Your task to perform on an android device: Do I have any events today? Image 0: 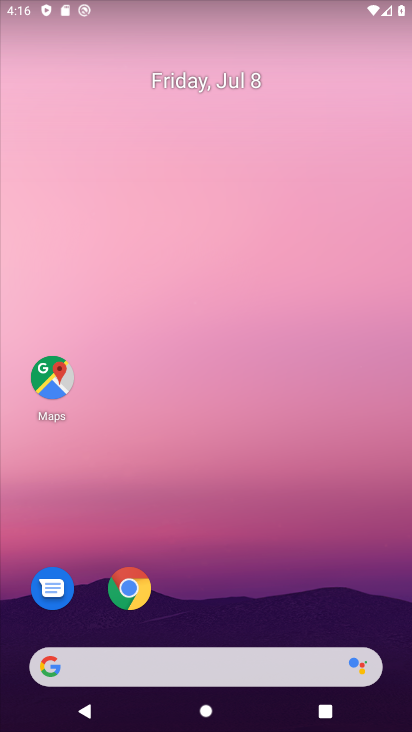
Step 0: drag from (266, 730) to (156, 139)
Your task to perform on an android device: Do I have any events today? Image 1: 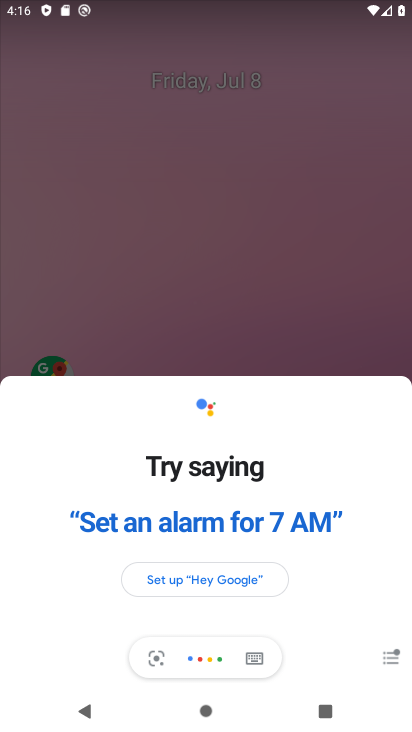
Step 1: click (176, 132)
Your task to perform on an android device: Do I have any events today? Image 2: 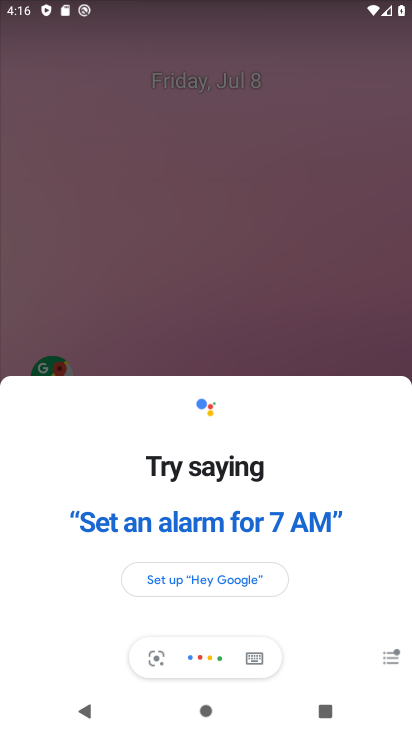
Step 2: click (174, 135)
Your task to perform on an android device: Do I have any events today? Image 3: 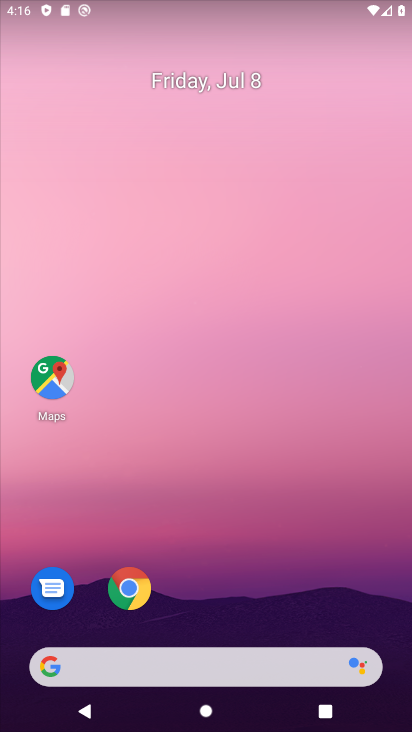
Step 3: press back button
Your task to perform on an android device: Do I have any events today? Image 4: 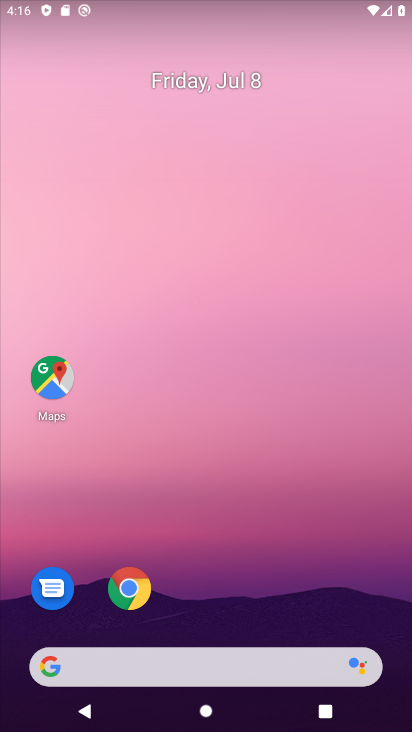
Step 4: press back button
Your task to perform on an android device: Do I have any events today? Image 5: 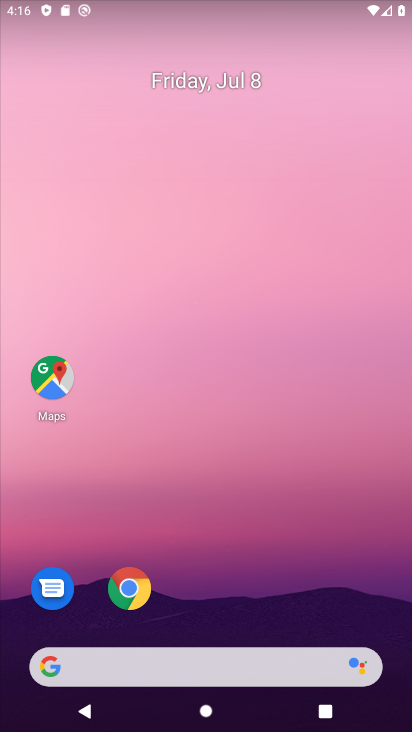
Step 5: drag from (299, 713) to (194, 205)
Your task to perform on an android device: Do I have any events today? Image 6: 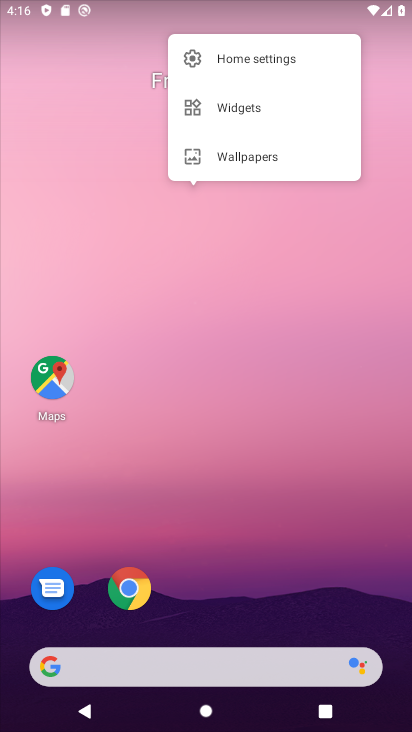
Step 6: drag from (281, 624) to (106, 31)
Your task to perform on an android device: Do I have any events today? Image 7: 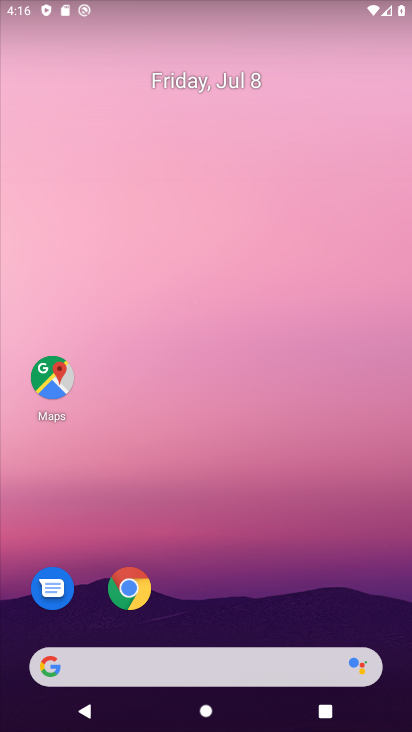
Step 7: drag from (286, 669) to (107, 114)
Your task to perform on an android device: Do I have any events today? Image 8: 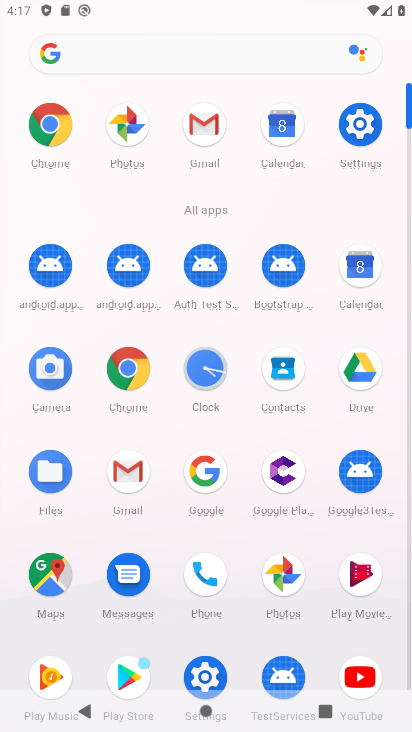
Step 8: click (362, 249)
Your task to perform on an android device: Do I have any events today? Image 9: 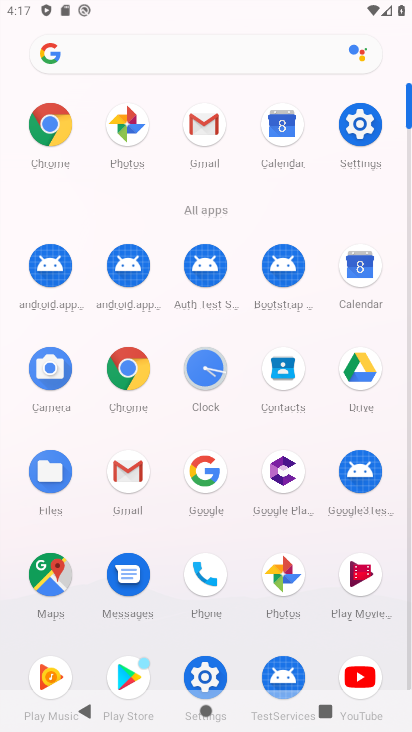
Step 9: click (364, 276)
Your task to perform on an android device: Do I have any events today? Image 10: 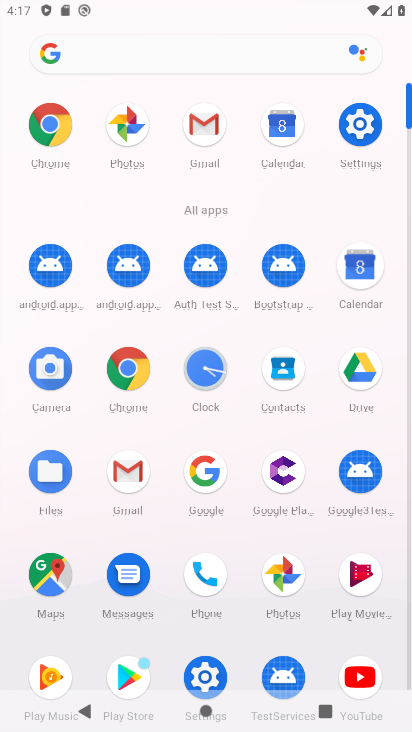
Step 10: click (364, 274)
Your task to perform on an android device: Do I have any events today? Image 11: 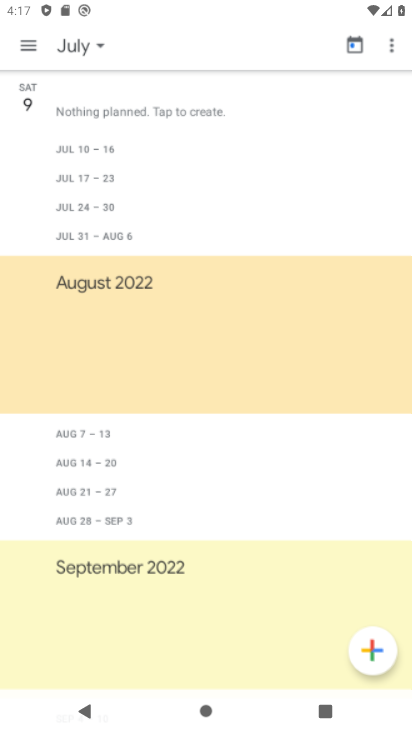
Step 11: click (364, 274)
Your task to perform on an android device: Do I have any events today? Image 12: 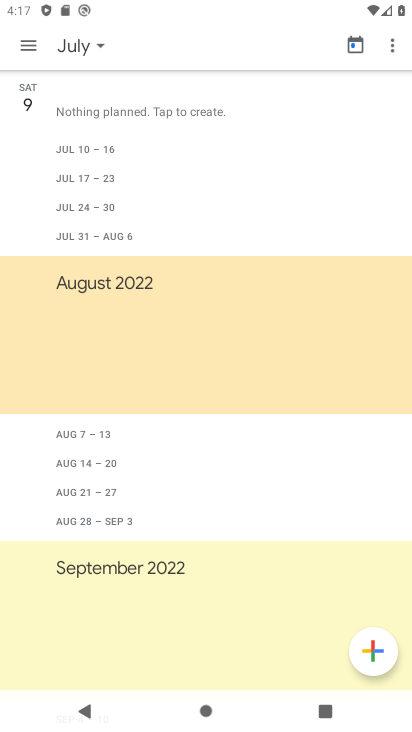
Step 12: click (364, 274)
Your task to perform on an android device: Do I have any events today? Image 13: 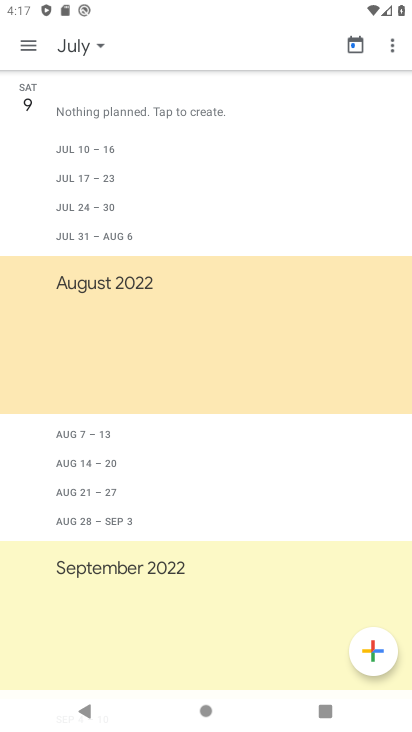
Step 13: task complete